Your task to perform on an android device: Open the stopwatch Image 0: 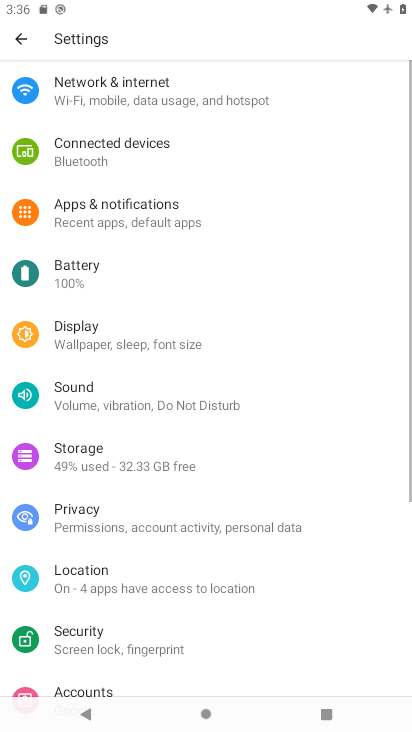
Step 0: press home button
Your task to perform on an android device: Open the stopwatch Image 1: 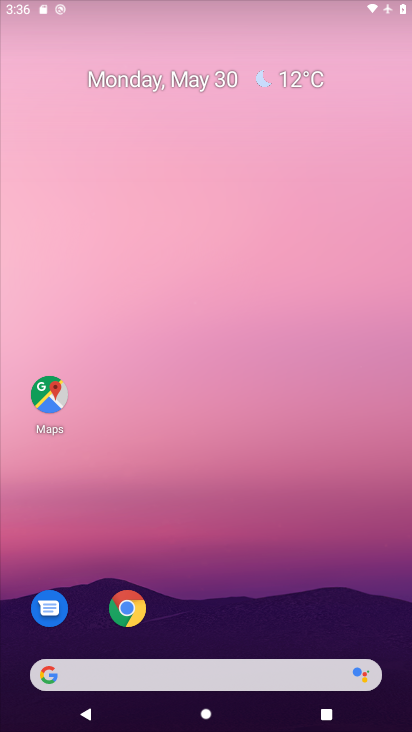
Step 1: drag from (360, 552) to (181, 9)
Your task to perform on an android device: Open the stopwatch Image 2: 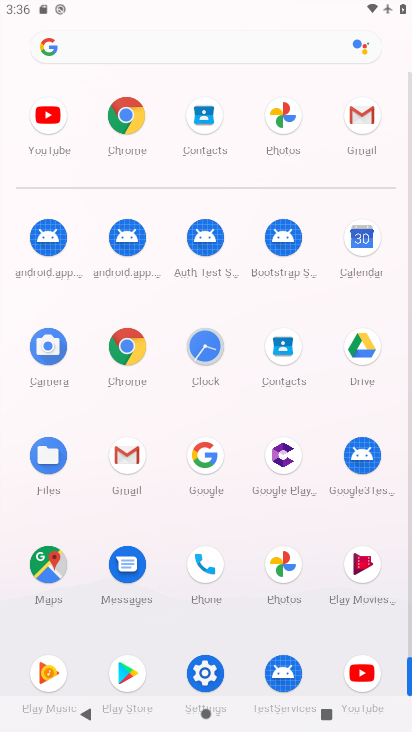
Step 2: click (203, 348)
Your task to perform on an android device: Open the stopwatch Image 3: 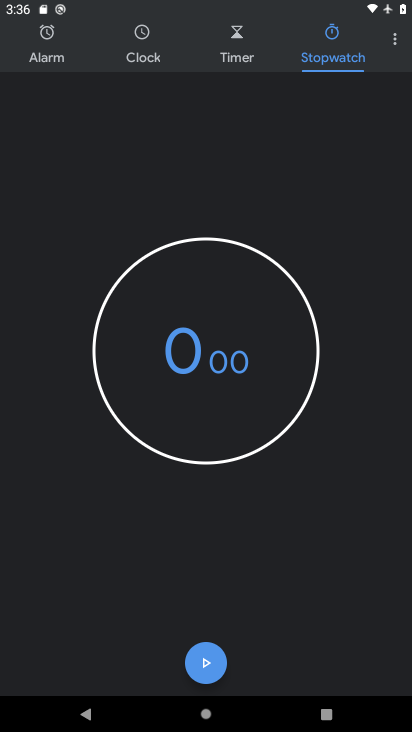
Step 3: task complete